Your task to perform on an android device: clear history in the chrome app Image 0: 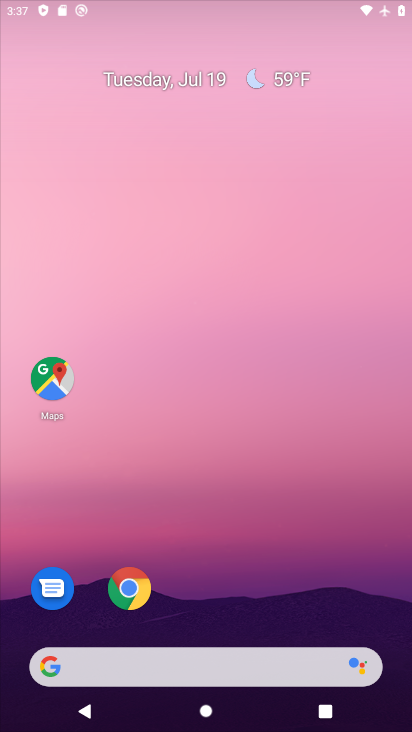
Step 0: press home button
Your task to perform on an android device: clear history in the chrome app Image 1: 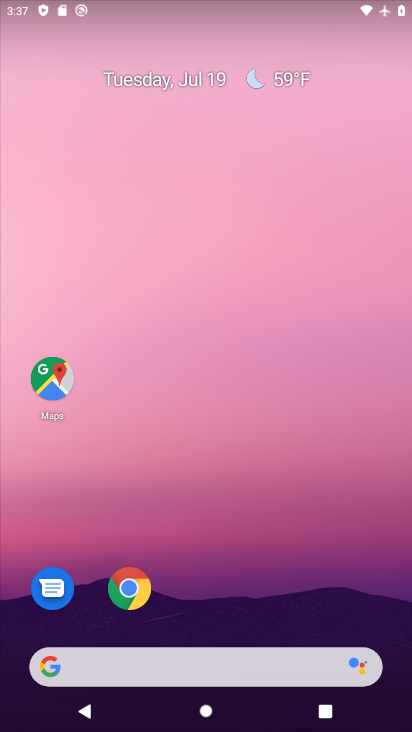
Step 1: drag from (268, 596) to (355, 10)
Your task to perform on an android device: clear history in the chrome app Image 2: 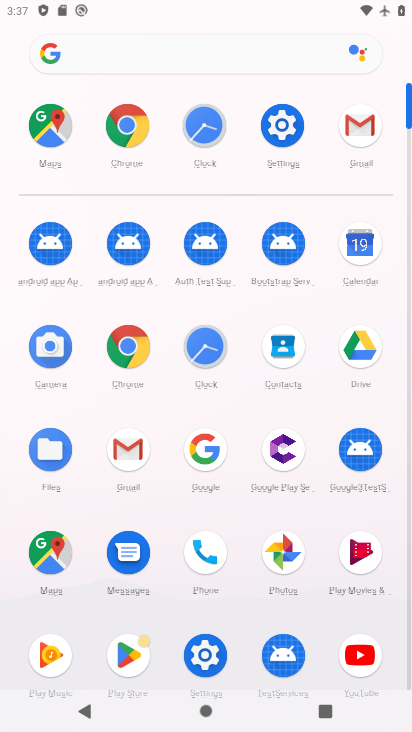
Step 2: click (129, 130)
Your task to perform on an android device: clear history in the chrome app Image 3: 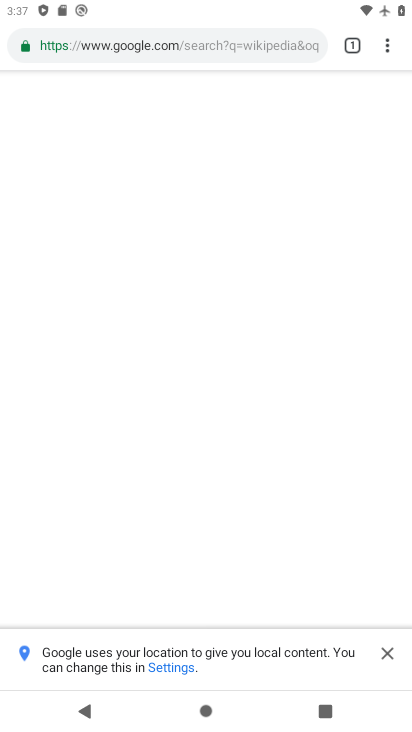
Step 3: drag from (384, 42) to (205, 252)
Your task to perform on an android device: clear history in the chrome app Image 4: 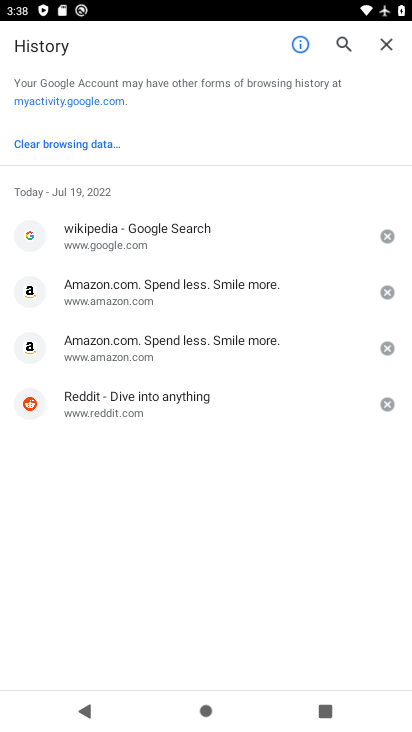
Step 4: click (58, 144)
Your task to perform on an android device: clear history in the chrome app Image 5: 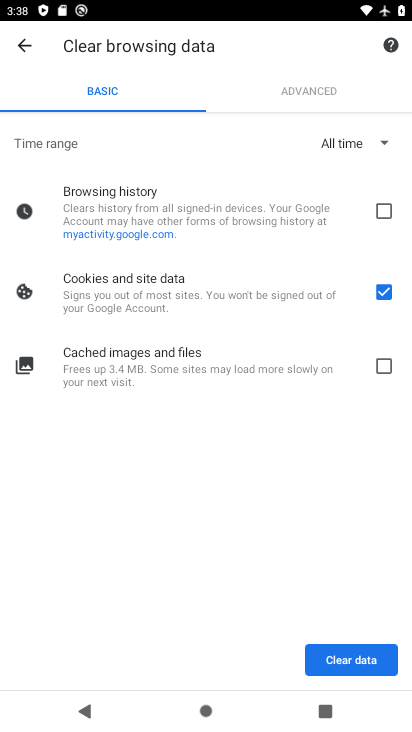
Step 5: click (339, 655)
Your task to perform on an android device: clear history in the chrome app Image 6: 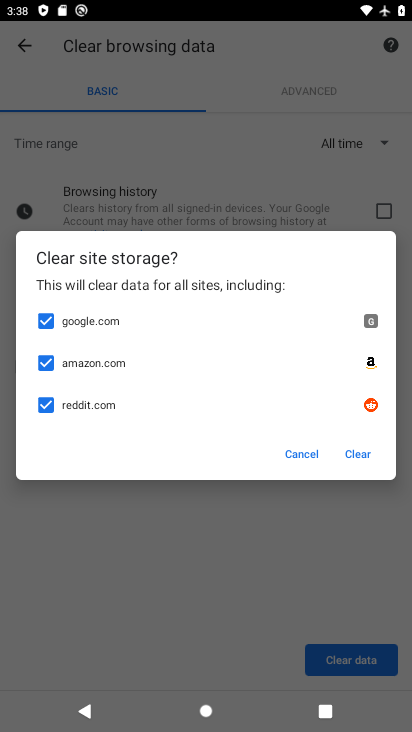
Step 6: click (350, 444)
Your task to perform on an android device: clear history in the chrome app Image 7: 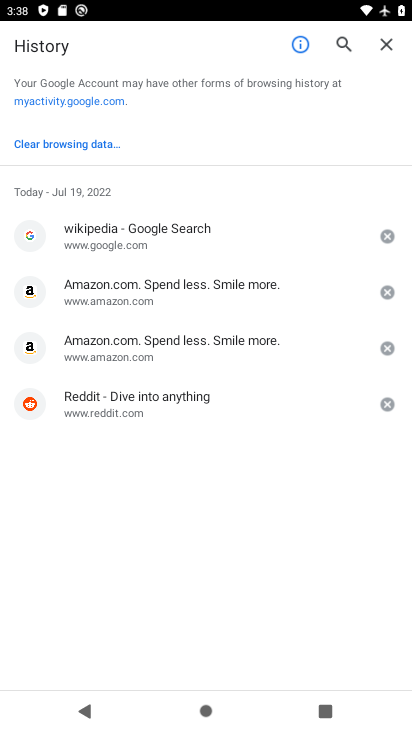
Step 7: click (69, 145)
Your task to perform on an android device: clear history in the chrome app Image 8: 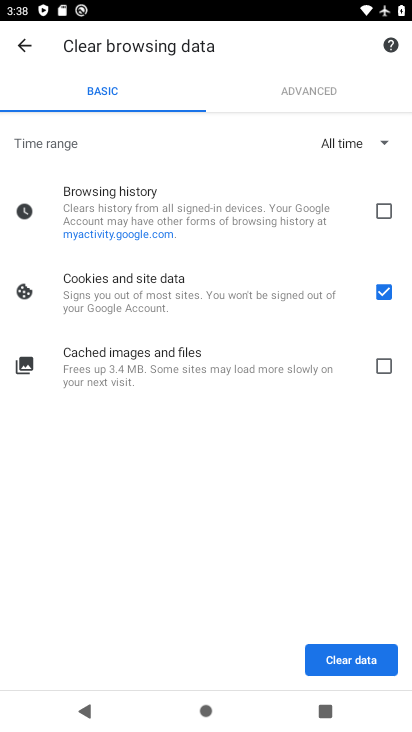
Step 8: click (341, 673)
Your task to perform on an android device: clear history in the chrome app Image 9: 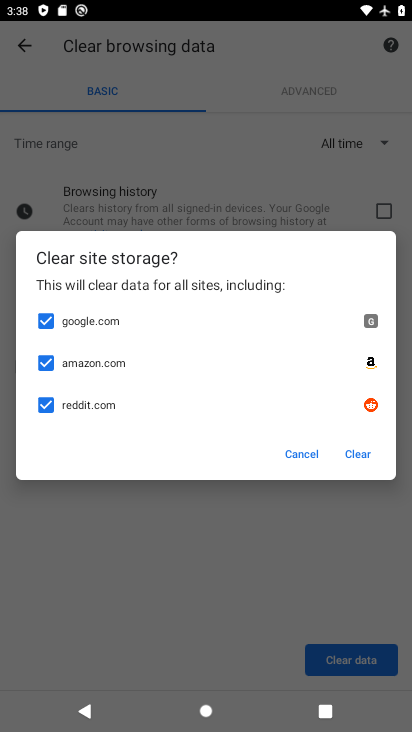
Step 9: click (362, 454)
Your task to perform on an android device: clear history in the chrome app Image 10: 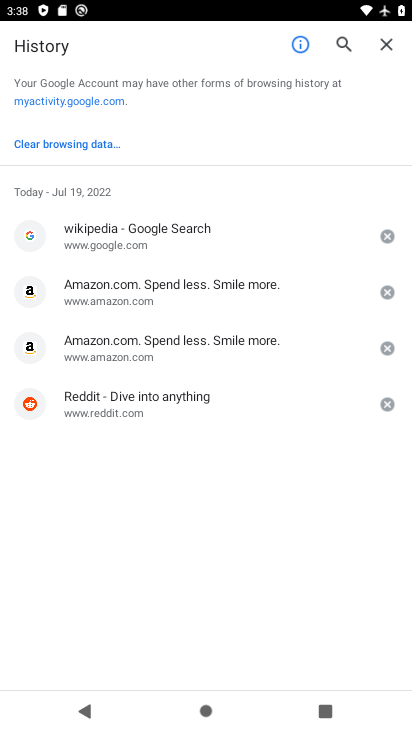
Step 10: click (69, 147)
Your task to perform on an android device: clear history in the chrome app Image 11: 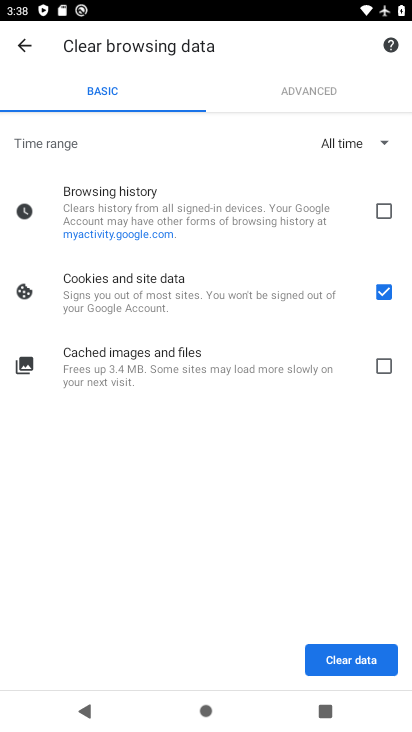
Step 11: click (313, 659)
Your task to perform on an android device: clear history in the chrome app Image 12: 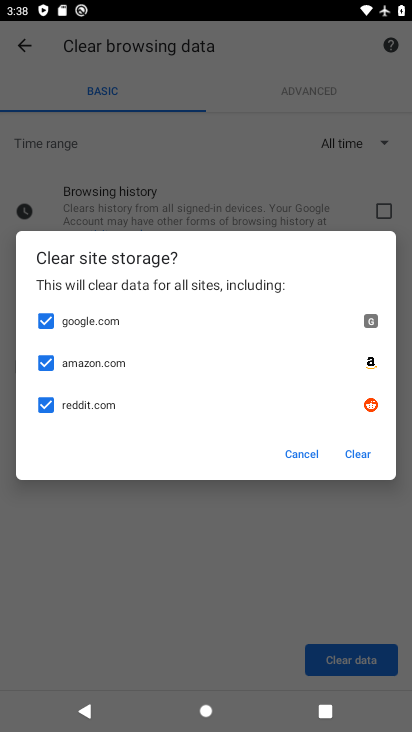
Step 12: click (297, 456)
Your task to perform on an android device: clear history in the chrome app Image 13: 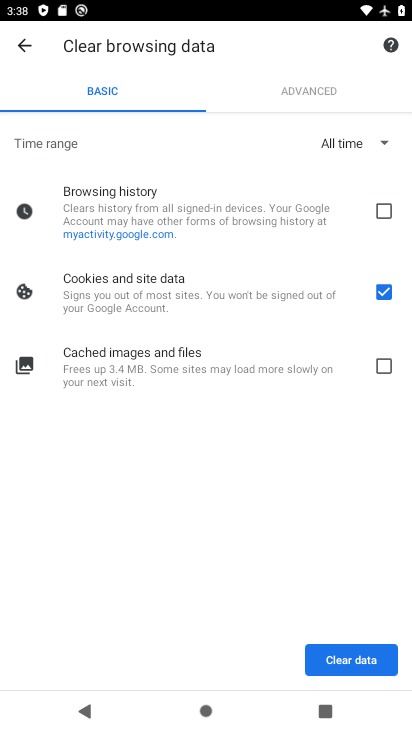
Step 13: click (384, 216)
Your task to perform on an android device: clear history in the chrome app Image 14: 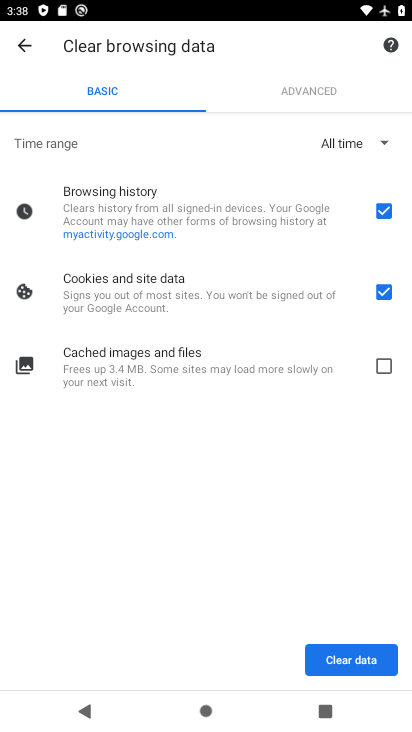
Step 14: click (383, 369)
Your task to perform on an android device: clear history in the chrome app Image 15: 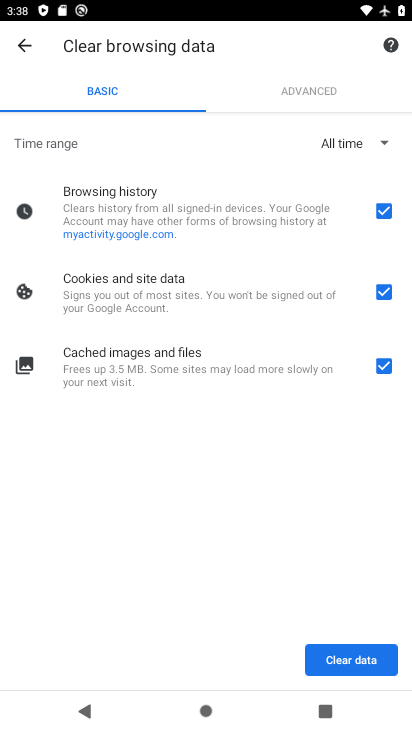
Step 15: click (378, 293)
Your task to perform on an android device: clear history in the chrome app Image 16: 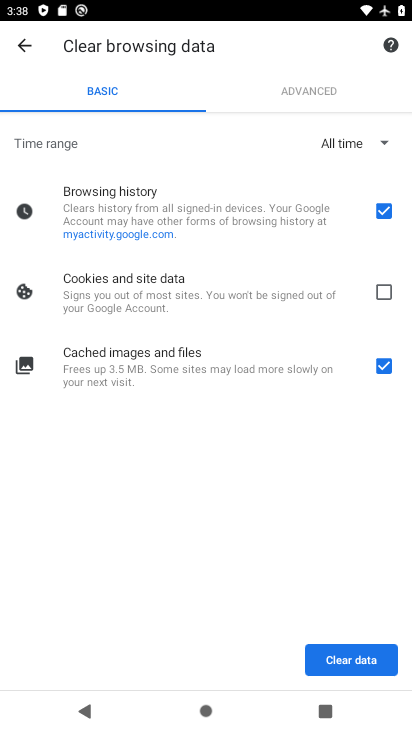
Step 16: click (386, 367)
Your task to perform on an android device: clear history in the chrome app Image 17: 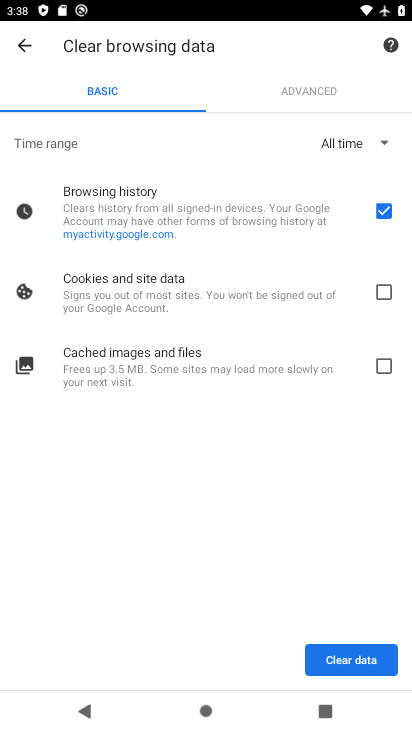
Step 17: click (352, 657)
Your task to perform on an android device: clear history in the chrome app Image 18: 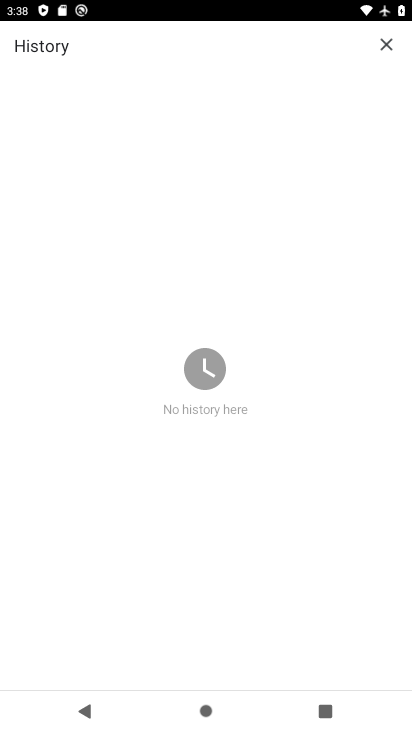
Step 18: task complete